Your task to perform on an android device: add a contact Image 0: 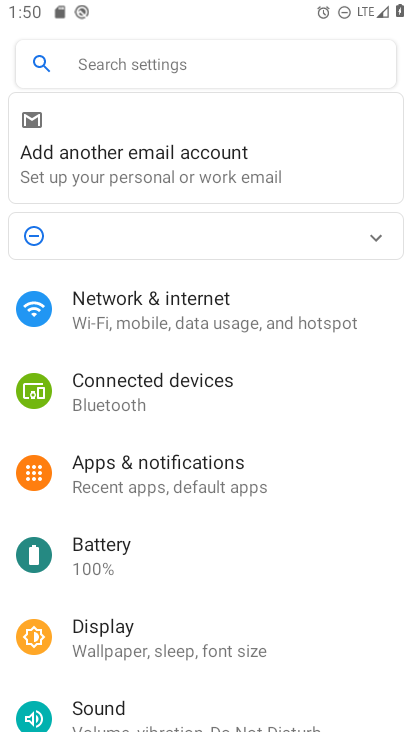
Step 0: press home button
Your task to perform on an android device: add a contact Image 1: 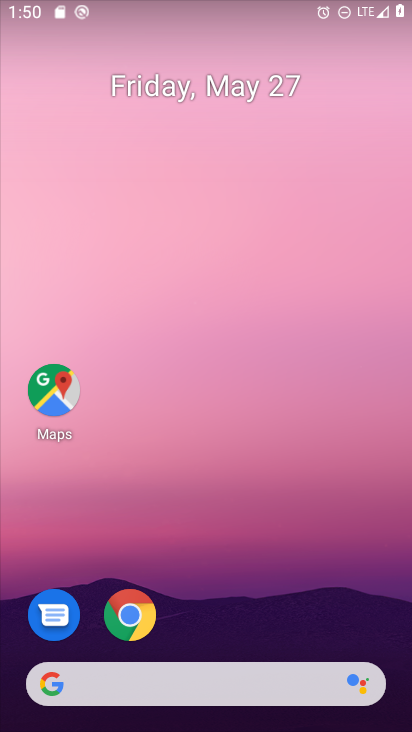
Step 1: drag from (291, 567) to (347, 19)
Your task to perform on an android device: add a contact Image 2: 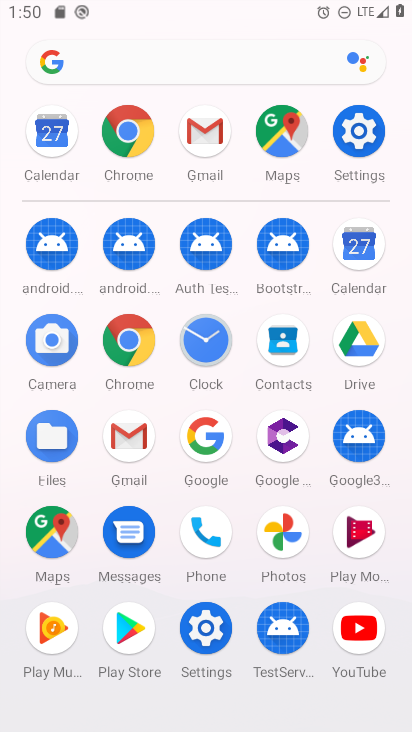
Step 2: click (297, 349)
Your task to perform on an android device: add a contact Image 3: 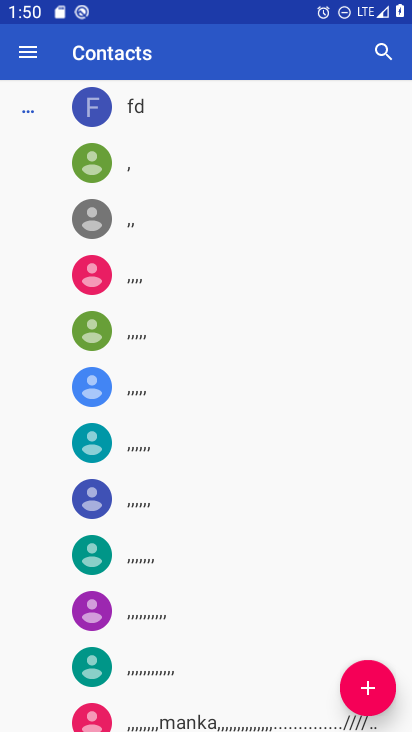
Step 3: click (369, 692)
Your task to perform on an android device: add a contact Image 4: 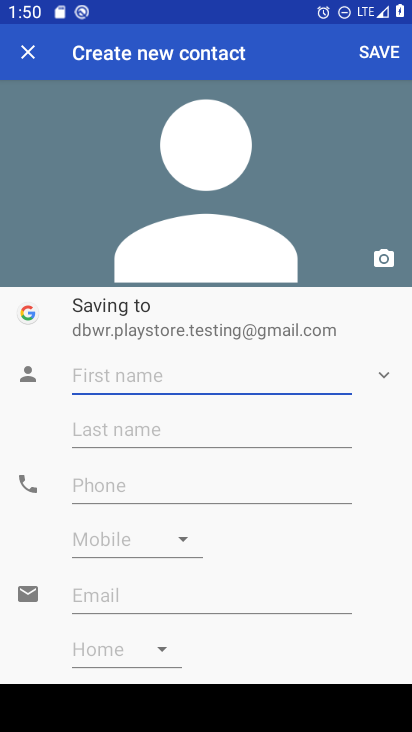
Step 4: type "kjdhkjfjkdkd"
Your task to perform on an android device: add a contact Image 5: 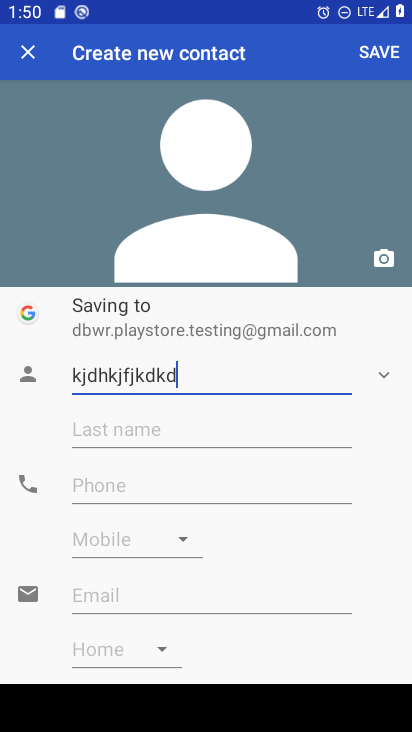
Step 5: click (146, 487)
Your task to perform on an android device: add a contact Image 6: 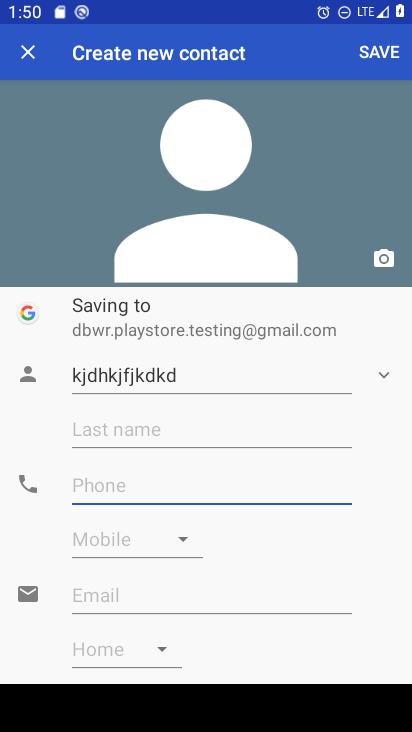
Step 6: type "98765677778"
Your task to perform on an android device: add a contact Image 7: 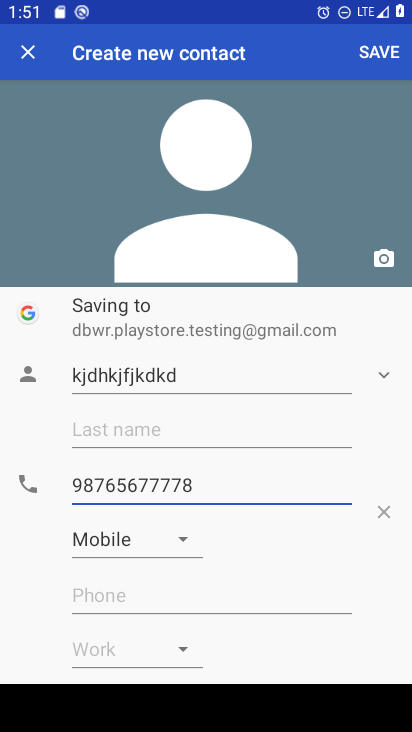
Step 7: click (394, 54)
Your task to perform on an android device: add a contact Image 8: 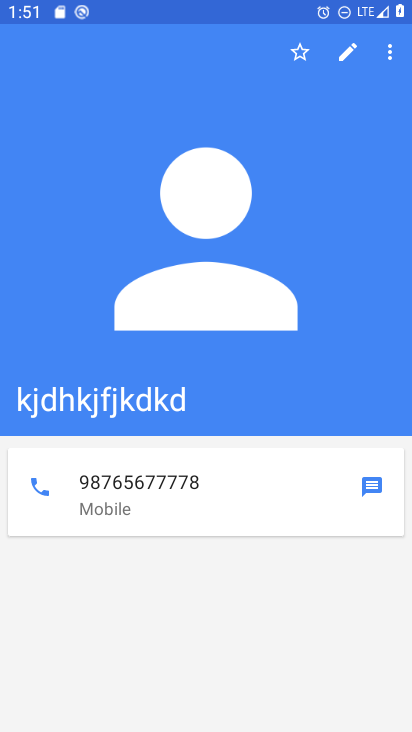
Step 8: task complete